Your task to perform on an android device: turn off sleep mode Image 0: 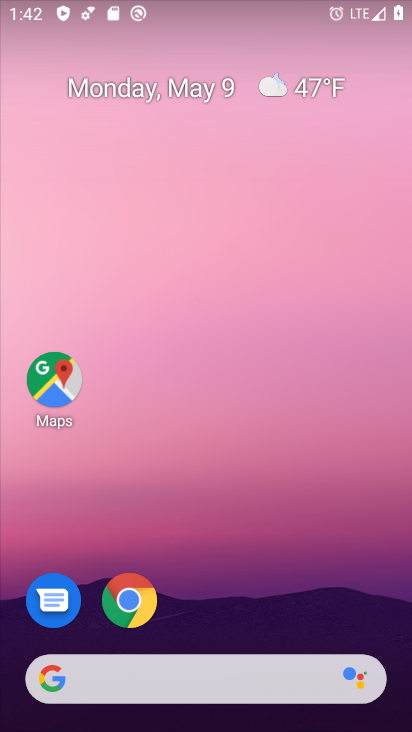
Step 0: drag from (166, 666) to (174, 174)
Your task to perform on an android device: turn off sleep mode Image 1: 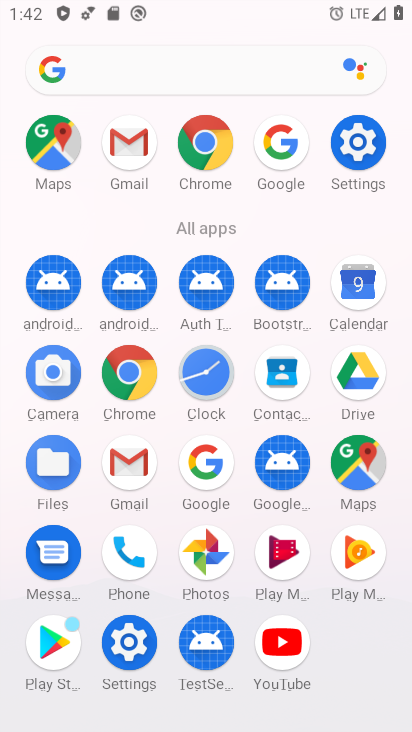
Step 1: click (342, 159)
Your task to perform on an android device: turn off sleep mode Image 2: 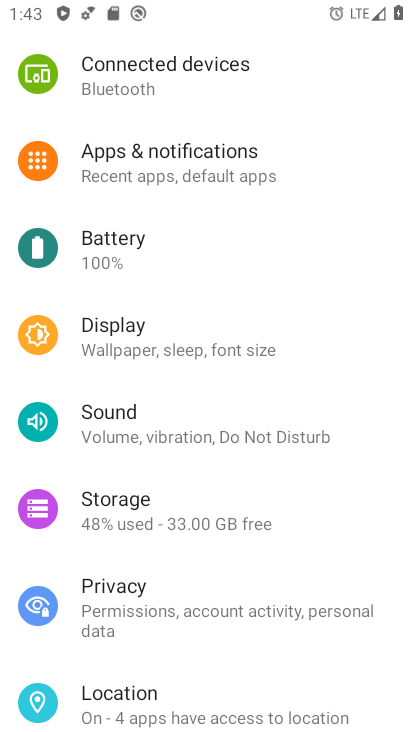
Step 2: click (155, 323)
Your task to perform on an android device: turn off sleep mode Image 3: 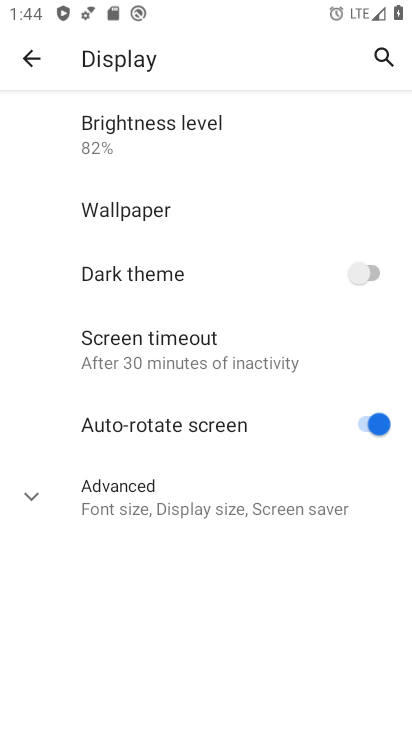
Step 3: click (116, 485)
Your task to perform on an android device: turn off sleep mode Image 4: 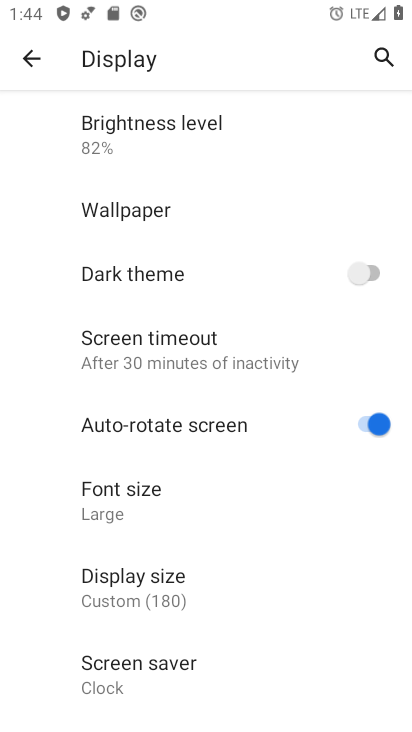
Step 4: task complete